Your task to perform on an android device: turn on data saver in the chrome app Image 0: 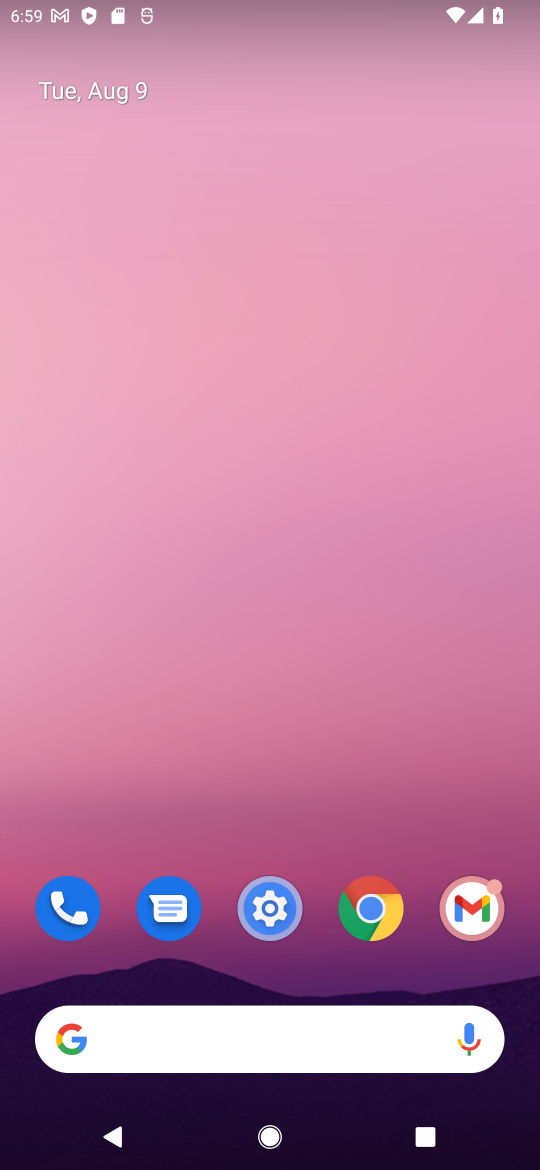
Step 0: click (371, 906)
Your task to perform on an android device: turn on data saver in the chrome app Image 1: 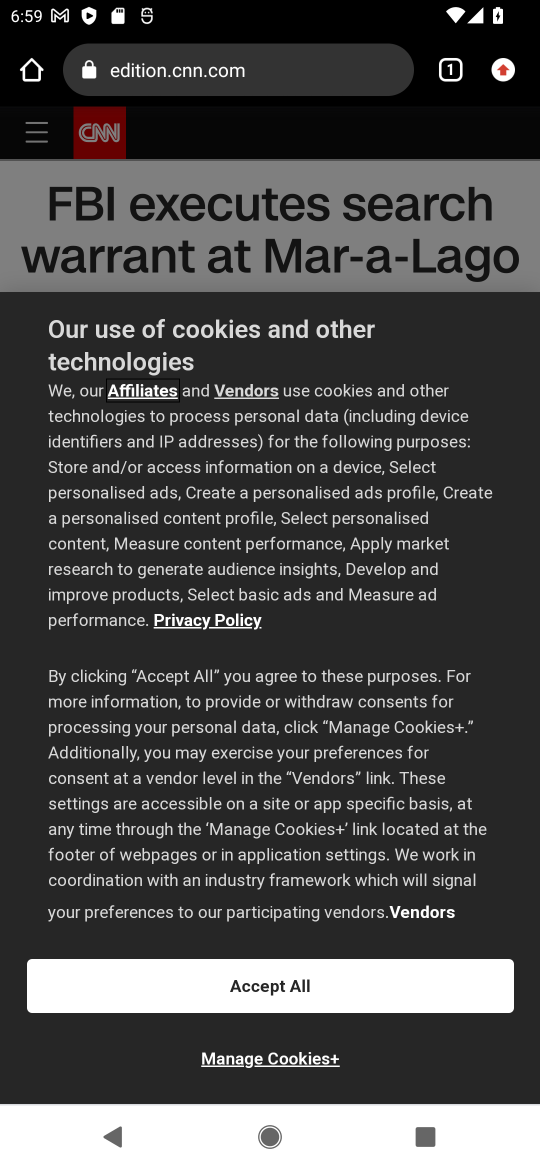
Step 1: click (498, 73)
Your task to perform on an android device: turn on data saver in the chrome app Image 2: 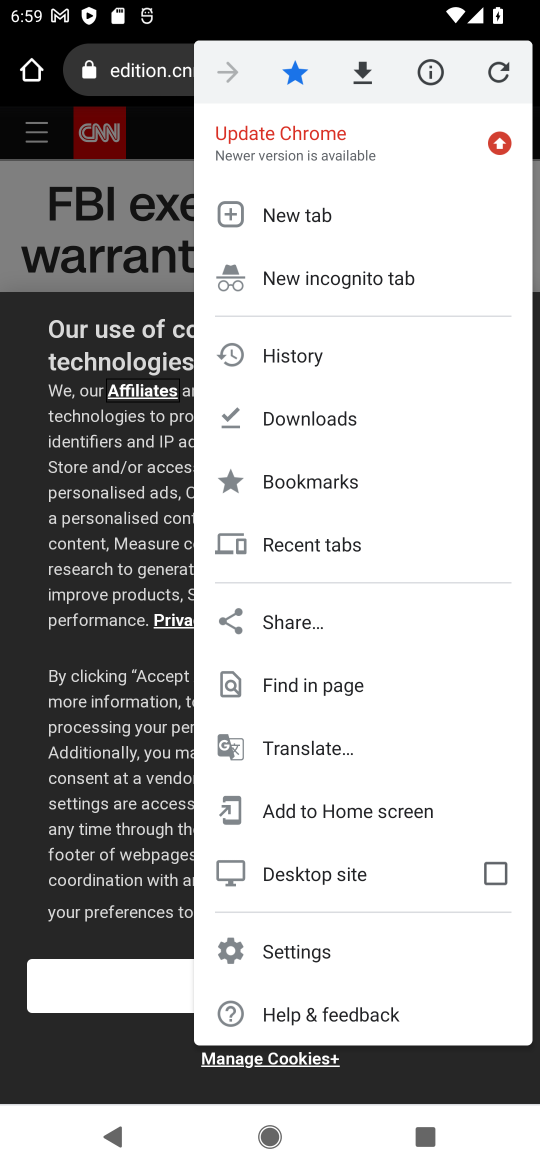
Step 2: click (299, 955)
Your task to perform on an android device: turn on data saver in the chrome app Image 3: 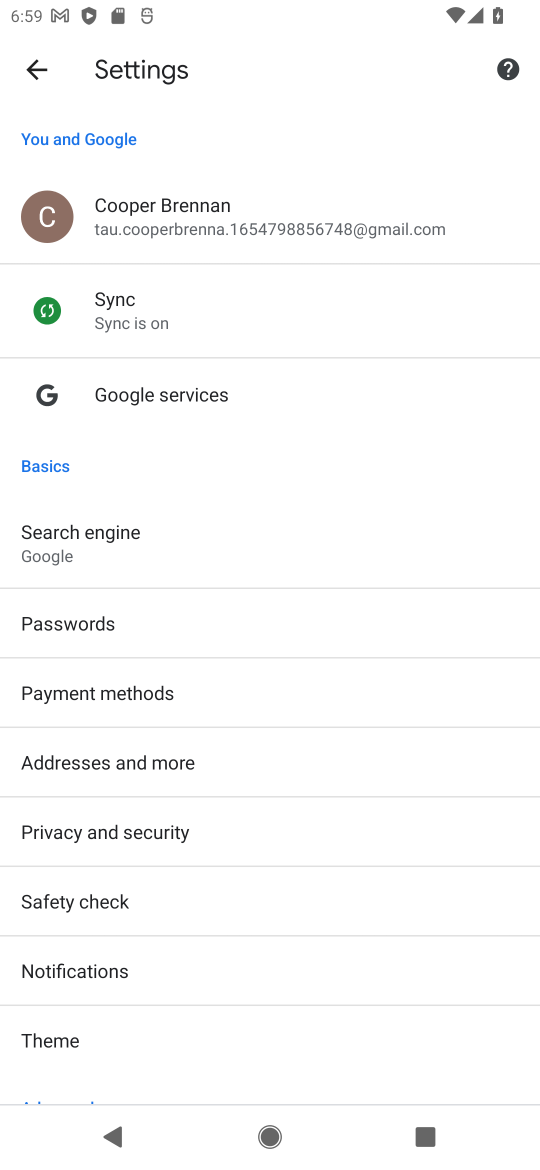
Step 3: drag from (129, 984) to (134, 580)
Your task to perform on an android device: turn on data saver in the chrome app Image 4: 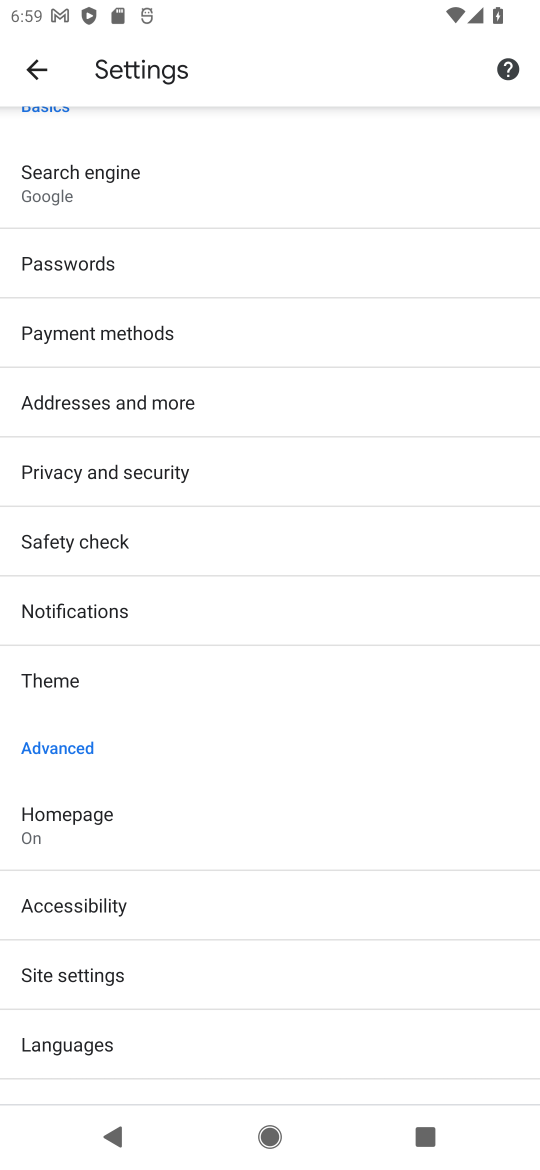
Step 4: drag from (76, 971) to (58, 493)
Your task to perform on an android device: turn on data saver in the chrome app Image 5: 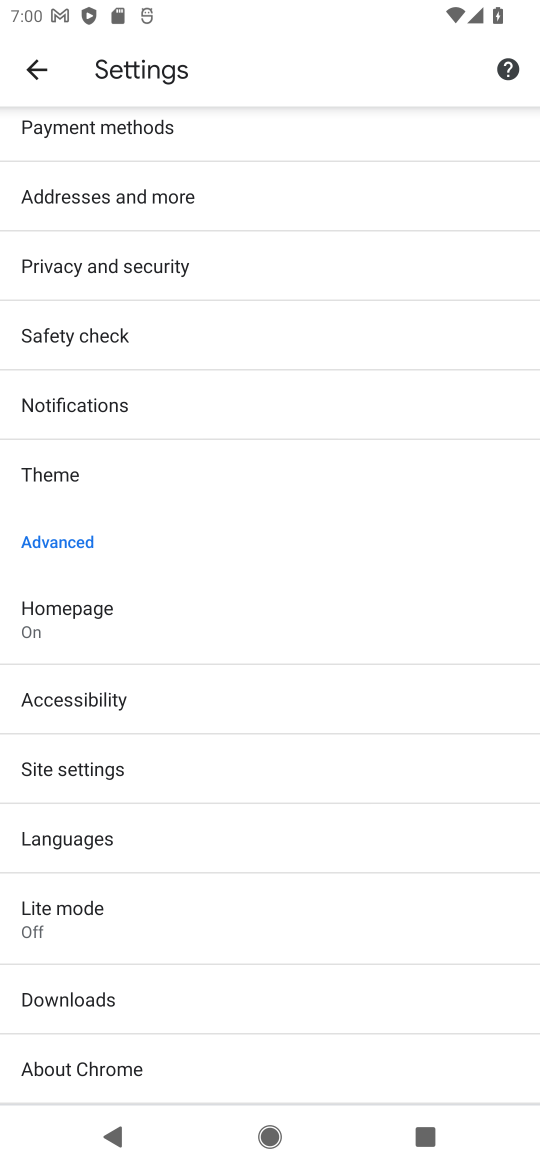
Step 5: click (77, 918)
Your task to perform on an android device: turn on data saver in the chrome app Image 6: 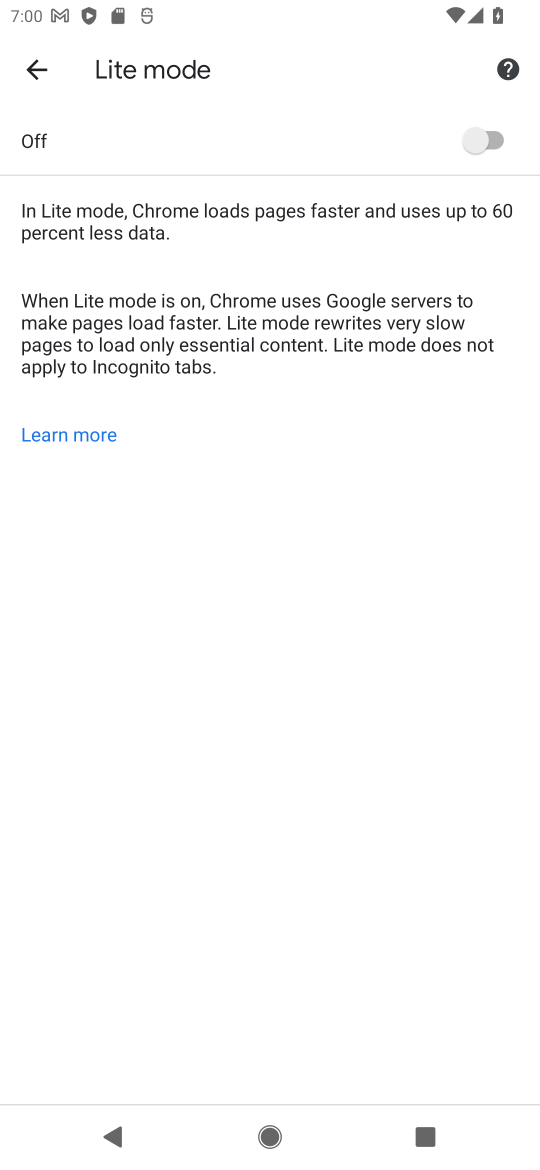
Step 6: click (495, 140)
Your task to perform on an android device: turn on data saver in the chrome app Image 7: 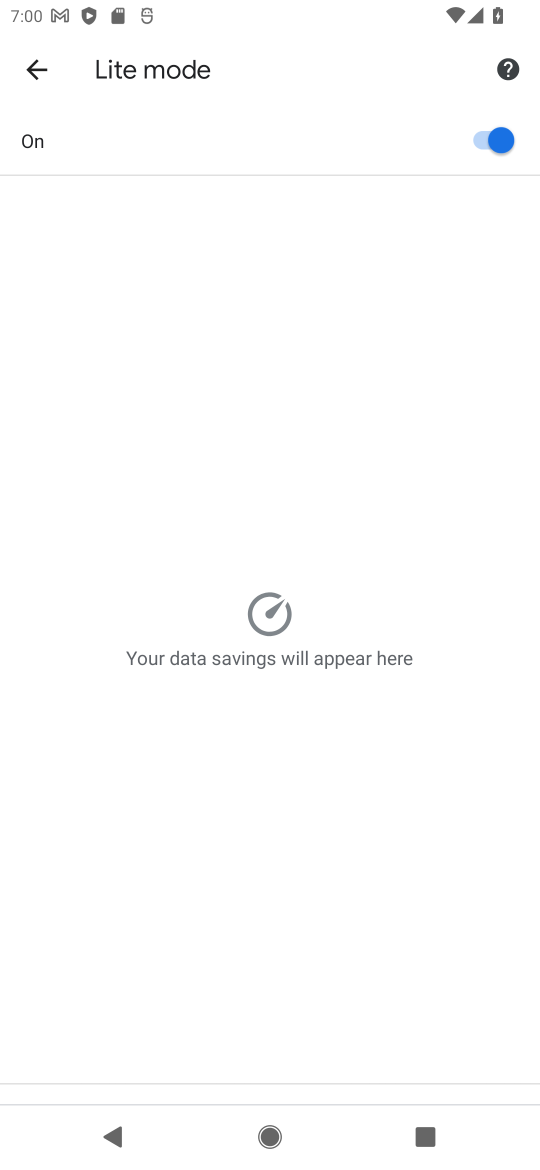
Step 7: task complete